Your task to perform on an android device: Open Google Chrome Image 0: 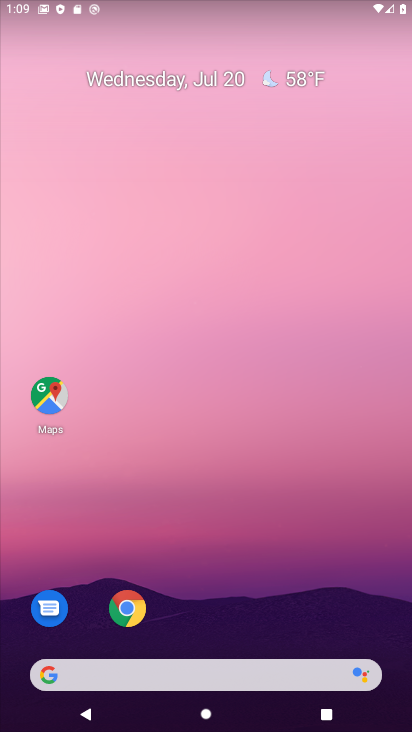
Step 0: drag from (226, 727) to (223, 91)
Your task to perform on an android device: Open Google Chrome Image 1: 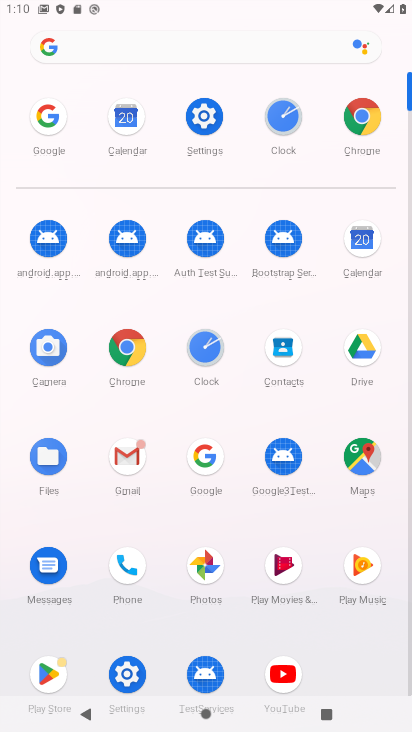
Step 1: click (130, 349)
Your task to perform on an android device: Open Google Chrome Image 2: 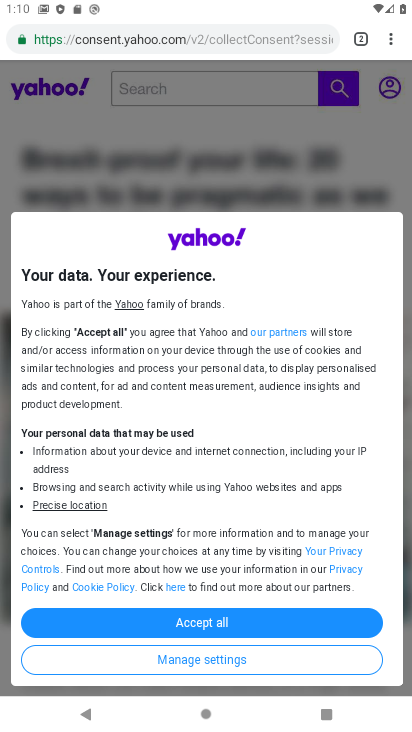
Step 2: task complete